Your task to perform on an android device: Open privacy settings Image 0: 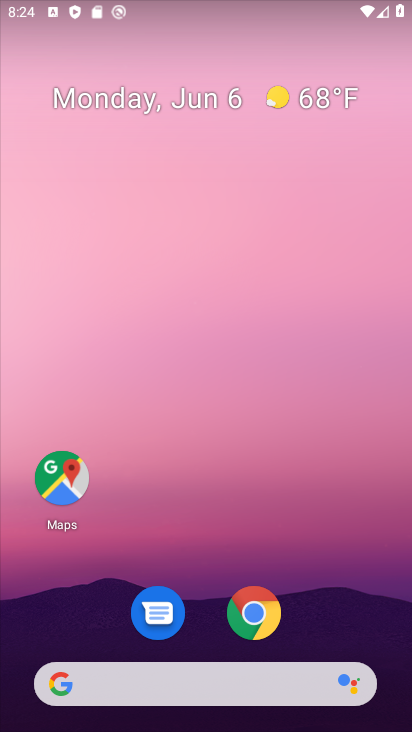
Step 0: click (252, 610)
Your task to perform on an android device: Open privacy settings Image 1: 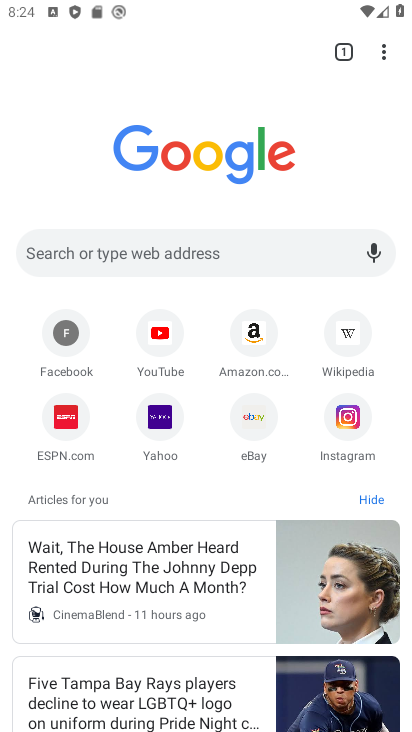
Step 1: click (383, 45)
Your task to perform on an android device: Open privacy settings Image 2: 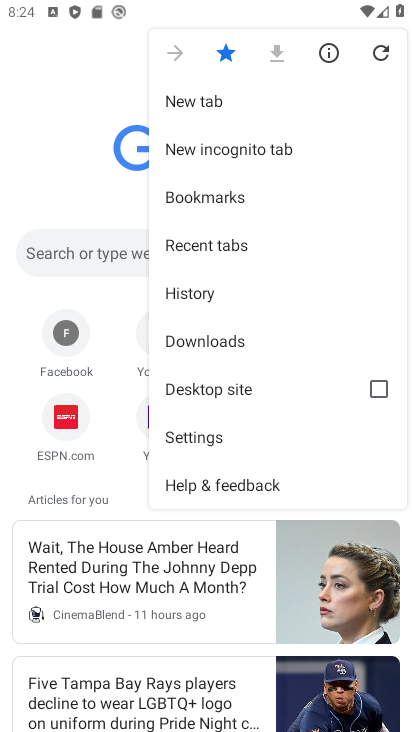
Step 2: click (201, 439)
Your task to perform on an android device: Open privacy settings Image 3: 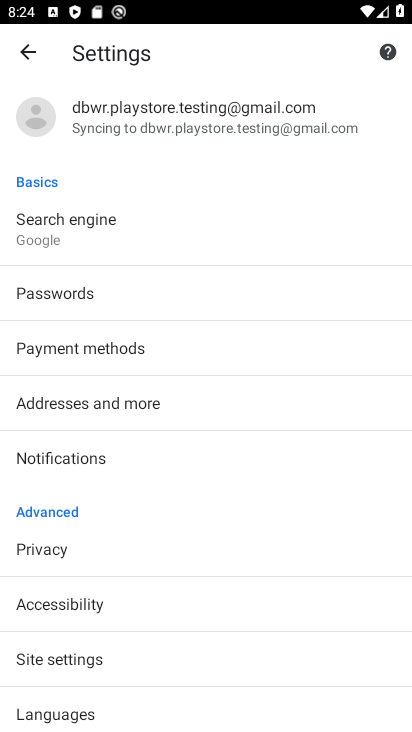
Step 3: click (53, 550)
Your task to perform on an android device: Open privacy settings Image 4: 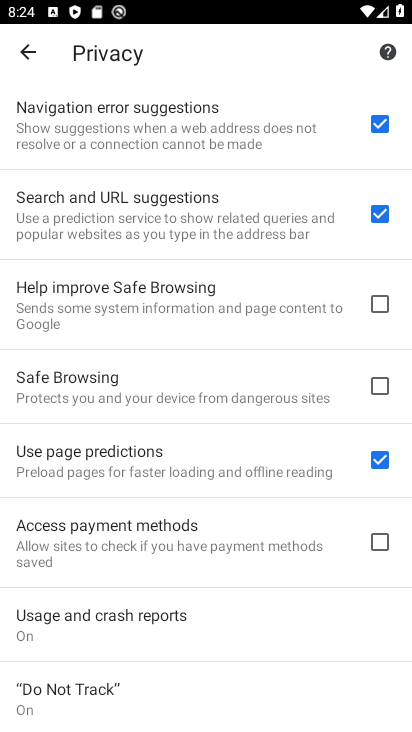
Step 4: task complete